Your task to perform on an android device: change the clock display to analog Image 0: 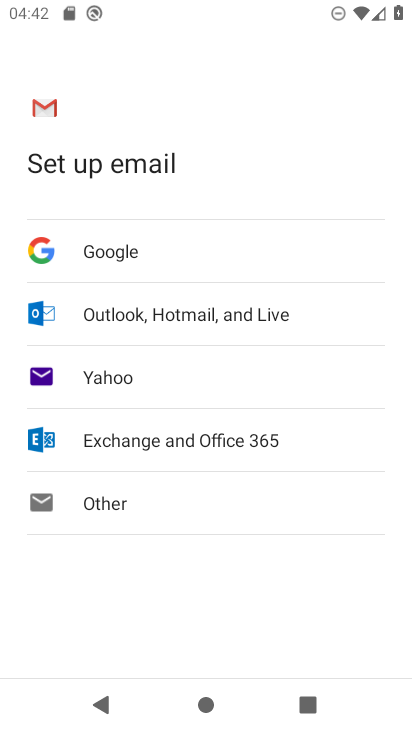
Step 0: press home button
Your task to perform on an android device: change the clock display to analog Image 1: 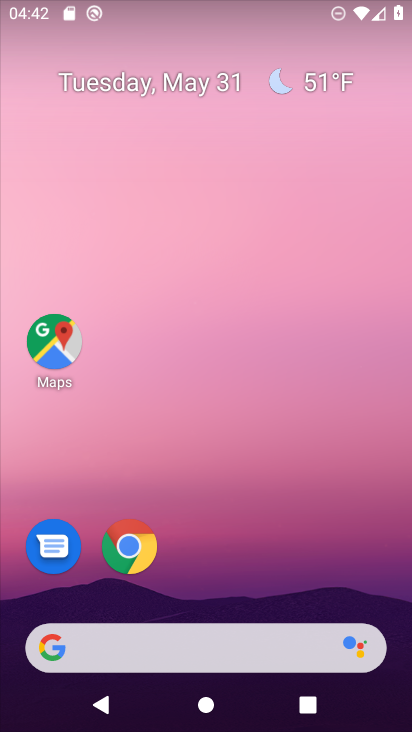
Step 1: drag from (205, 568) to (150, 190)
Your task to perform on an android device: change the clock display to analog Image 2: 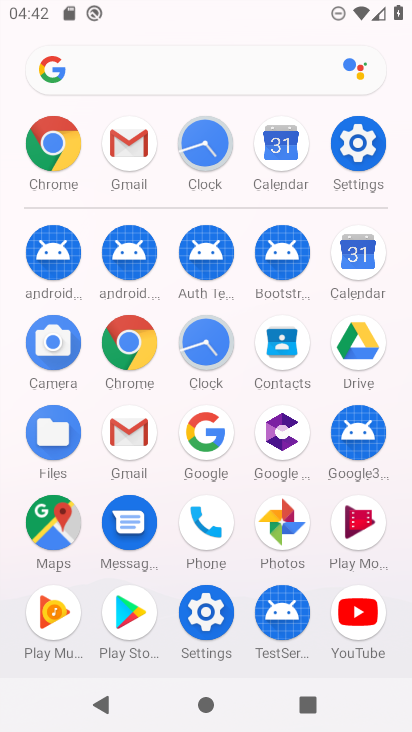
Step 2: click (206, 362)
Your task to perform on an android device: change the clock display to analog Image 3: 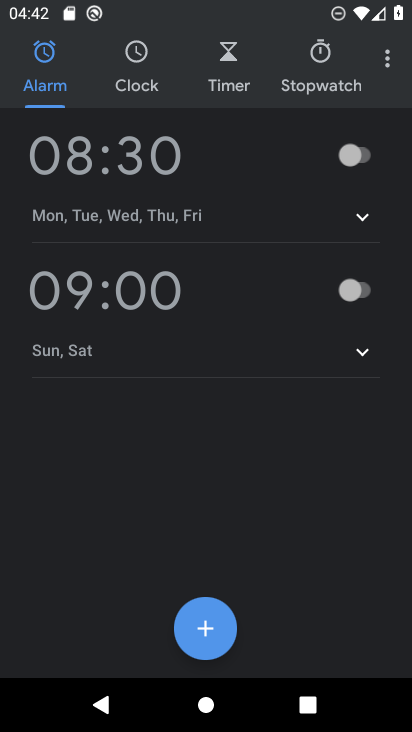
Step 3: click (380, 69)
Your task to perform on an android device: change the clock display to analog Image 4: 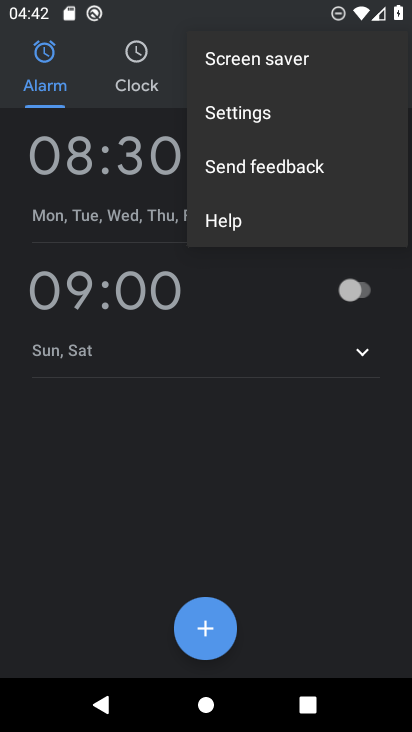
Step 4: click (246, 122)
Your task to perform on an android device: change the clock display to analog Image 5: 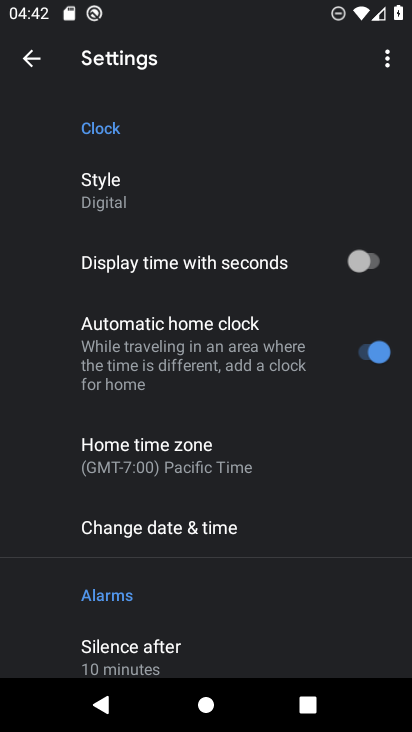
Step 5: click (111, 208)
Your task to perform on an android device: change the clock display to analog Image 6: 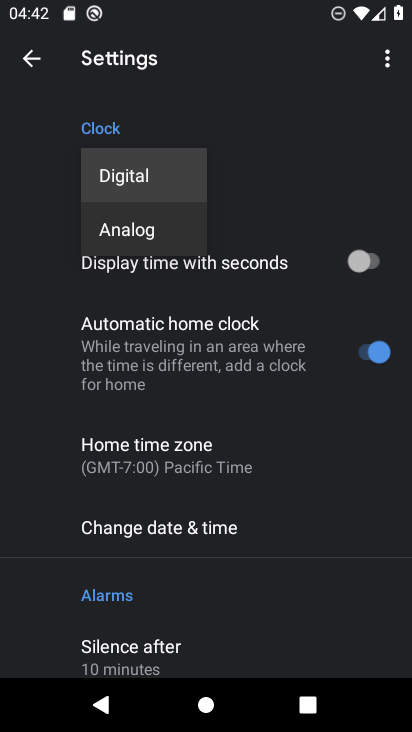
Step 6: click (137, 236)
Your task to perform on an android device: change the clock display to analog Image 7: 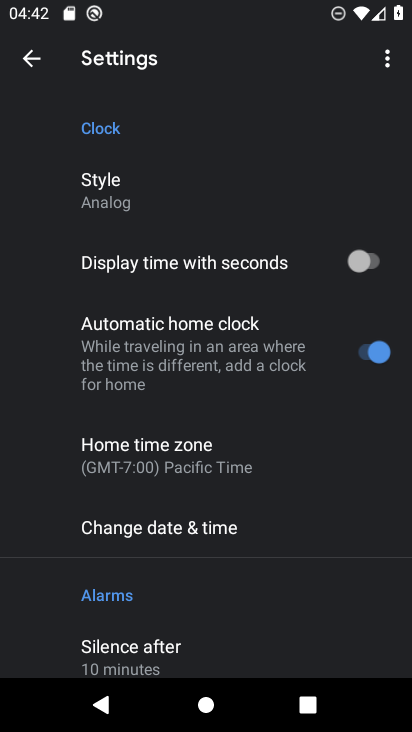
Step 7: task complete